Your task to perform on an android device: Open the stopwatch Image 0: 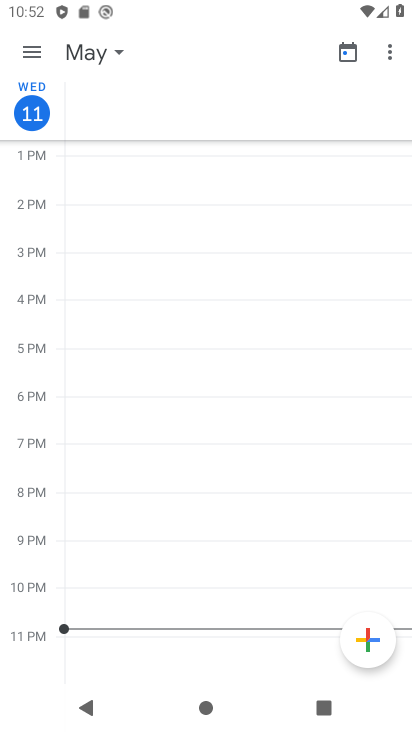
Step 0: press home button
Your task to perform on an android device: Open the stopwatch Image 1: 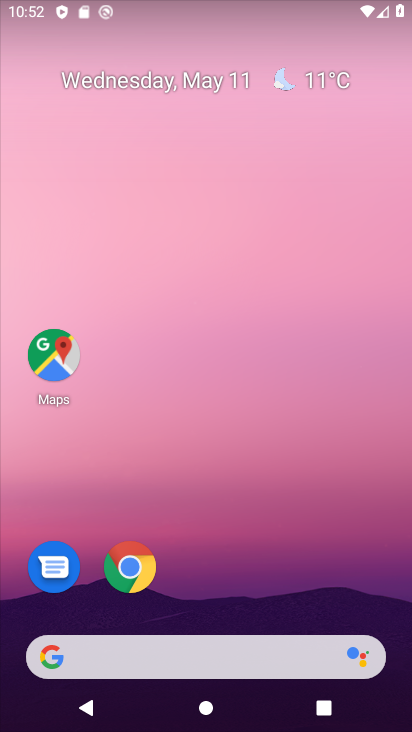
Step 1: drag from (312, 526) to (363, 148)
Your task to perform on an android device: Open the stopwatch Image 2: 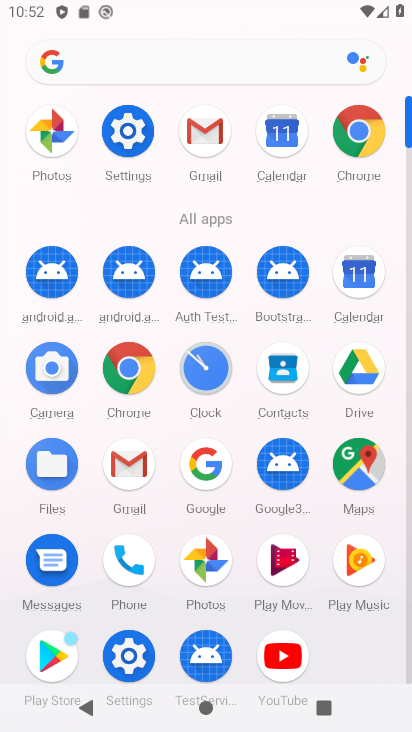
Step 2: click (199, 378)
Your task to perform on an android device: Open the stopwatch Image 3: 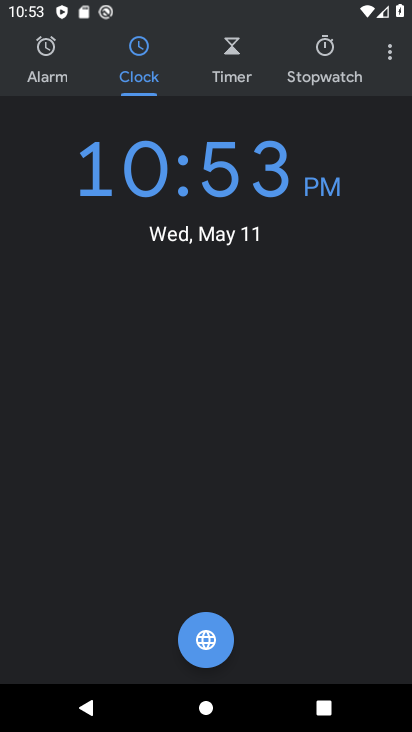
Step 3: click (310, 85)
Your task to perform on an android device: Open the stopwatch Image 4: 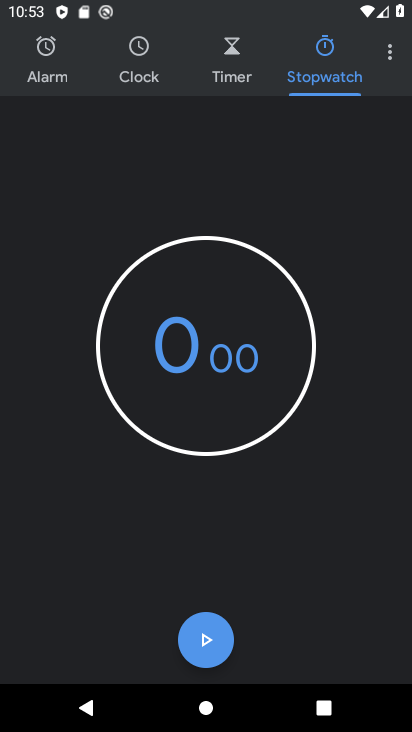
Step 4: click (191, 381)
Your task to perform on an android device: Open the stopwatch Image 5: 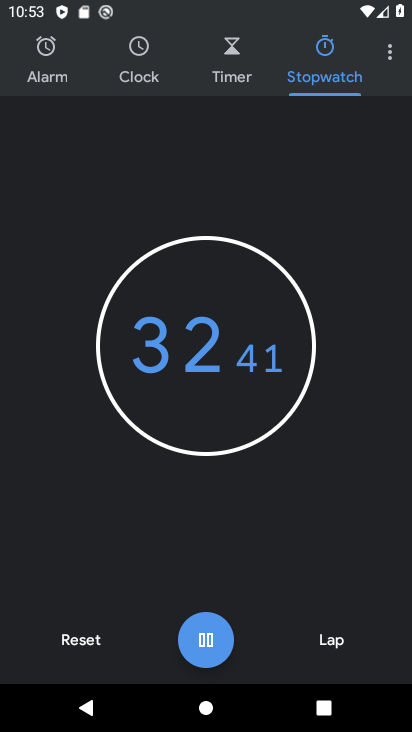
Step 5: task complete